Your task to perform on an android device: stop showing notifications on the lock screen Image 0: 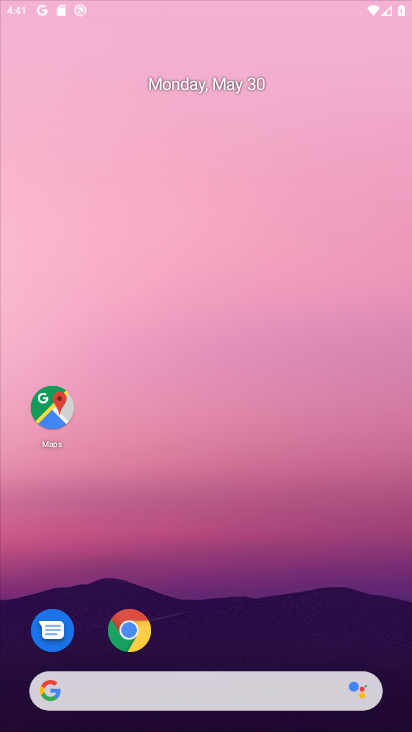
Step 0: press home button
Your task to perform on an android device: stop showing notifications on the lock screen Image 1: 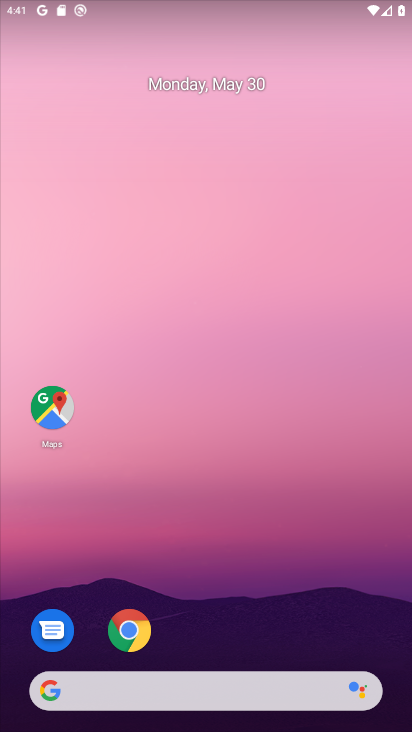
Step 1: drag from (286, 627) to (361, 350)
Your task to perform on an android device: stop showing notifications on the lock screen Image 2: 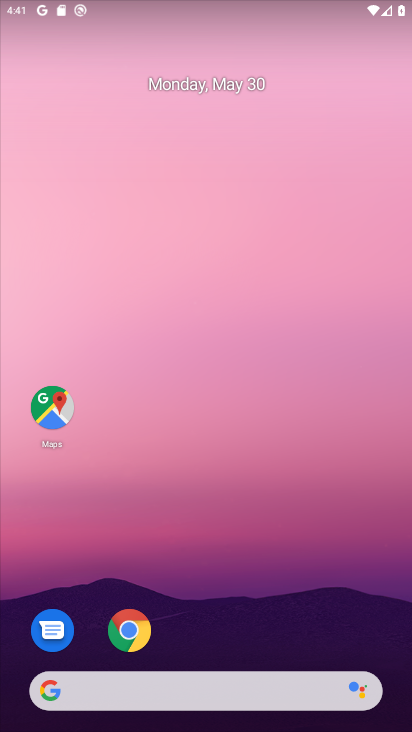
Step 2: drag from (225, 636) to (305, 61)
Your task to perform on an android device: stop showing notifications on the lock screen Image 3: 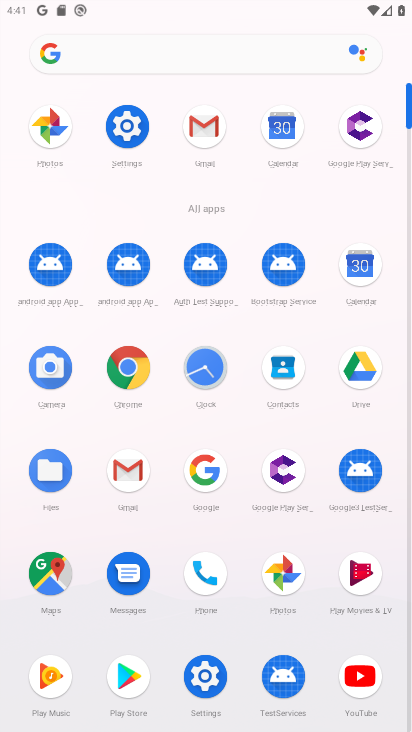
Step 3: click (135, 147)
Your task to perform on an android device: stop showing notifications on the lock screen Image 4: 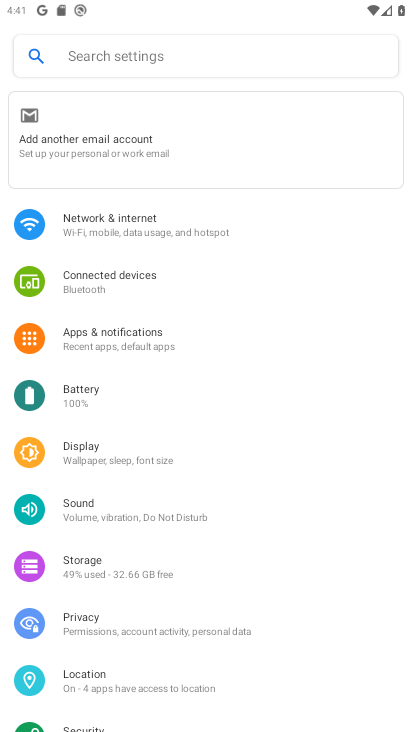
Step 4: click (110, 344)
Your task to perform on an android device: stop showing notifications on the lock screen Image 5: 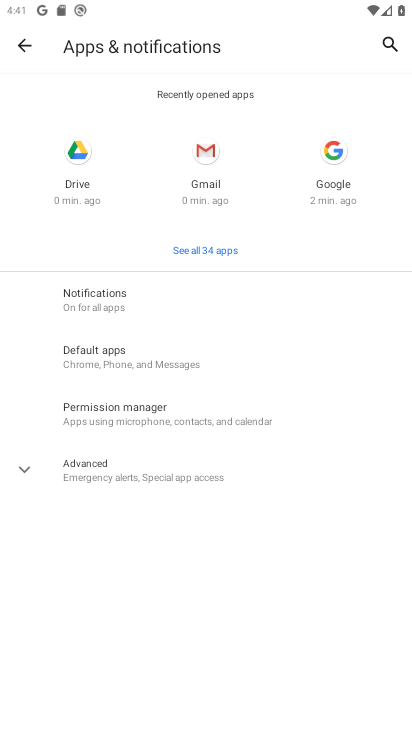
Step 5: click (101, 298)
Your task to perform on an android device: stop showing notifications on the lock screen Image 6: 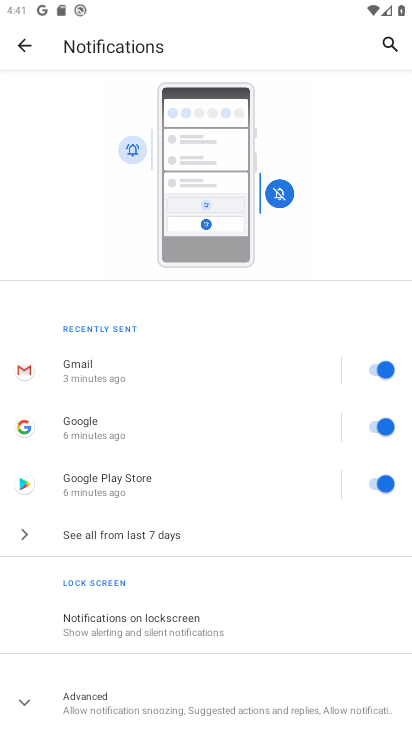
Step 6: click (127, 632)
Your task to perform on an android device: stop showing notifications on the lock screen Image 7: 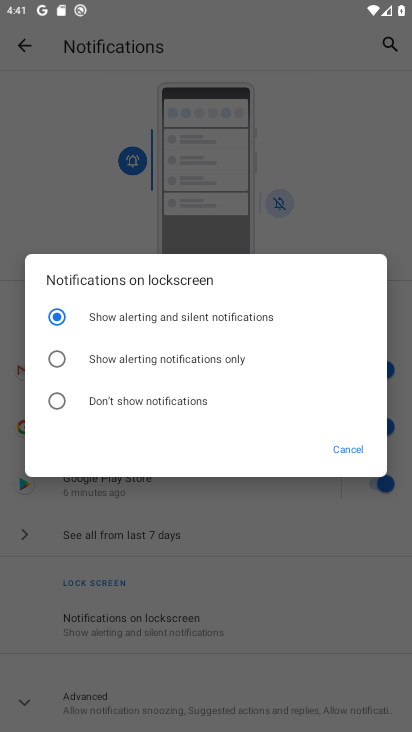
Step 7: click (57, 403)
Your task to perform on an android device: stop showing notifications on the lock screen Image 8: 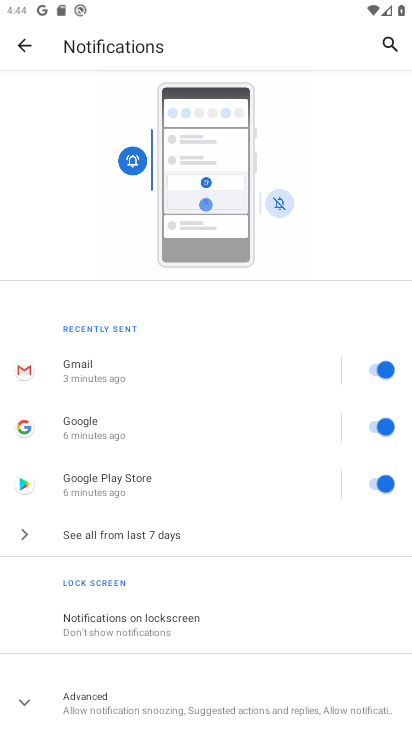
Step 8: task complete